Your task to perform on an android device: Open calendar and show me the first week of next month Image 0: 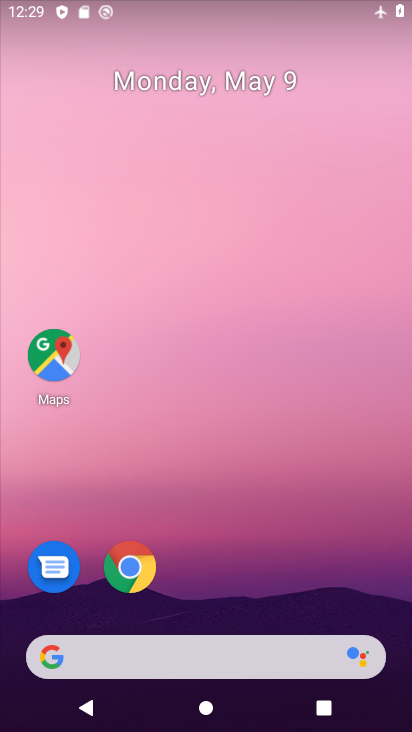
Step 0: drag from (224, 604) to (280, 1)
Your task to perform on an android device: Open calendar and show me the first week of next month Image 1: 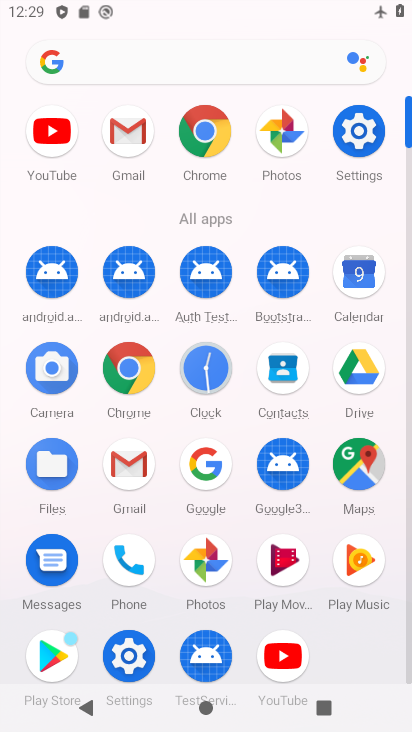
Step 1: click (366, 280)
Your task to perform on an android device: Open calendar and show me the first week of next month Image 2: 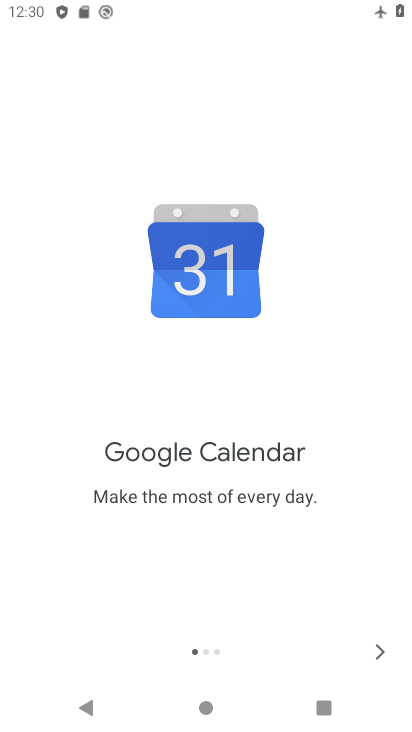
Step 2: click (370, 640)
Your task to perform on an android device: Open calendar and show me the first week of next month Image 3: 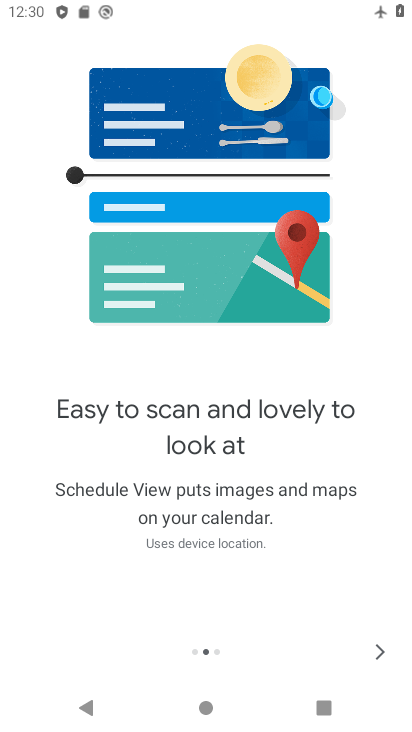
Step 3: click (371, 641)
Your task to perform on an android device: Open calendar and show me the first week of next month Image 4: 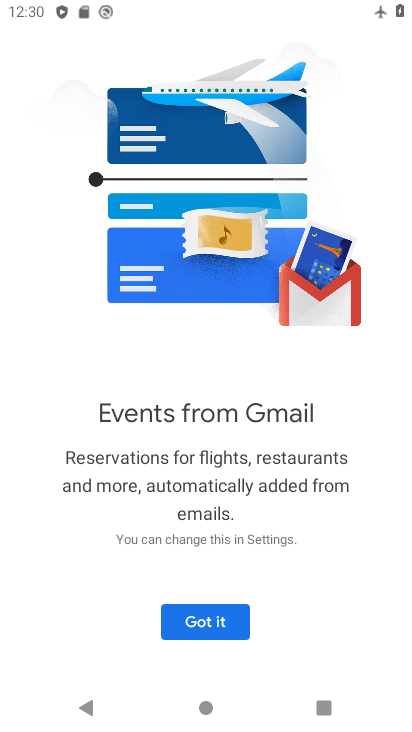
Step 4: click (369, 640)
Your task to perform on an android device: Open calendar and show me the first week of next month Image 5: 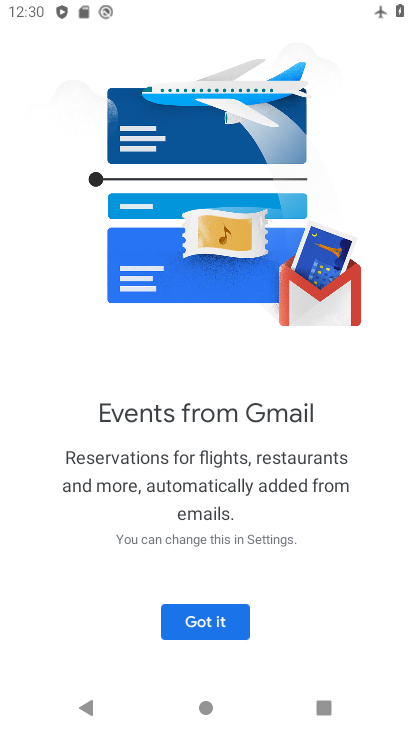
Step 5: click (199, 613)
Your task to perform on an android device: Open calendar and show me the first week of next month Image 6: 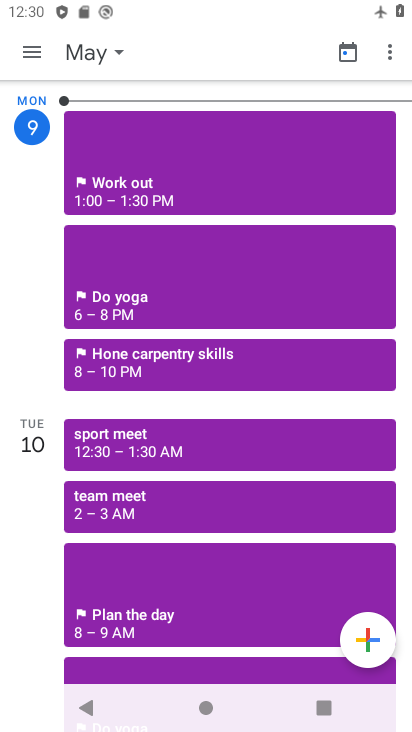
Step 6: click (35, 59)
Your task to perform on an android device: Open calendar and show me the first week of next month Image 7: 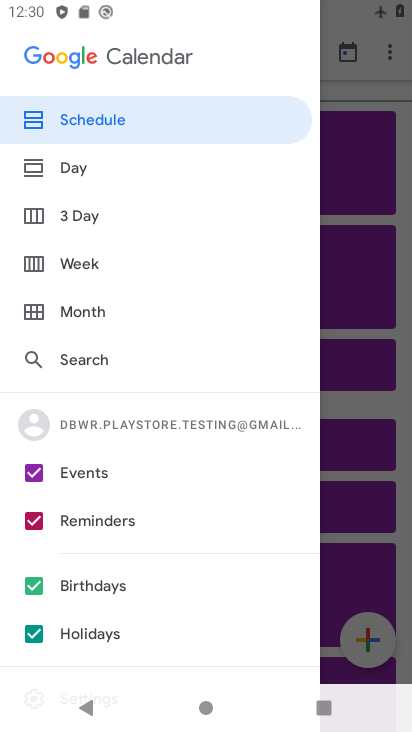
Step 7: click (88, 268)
Your task to perform on an android device: Open calendar and show me the first week of next month Image 8: 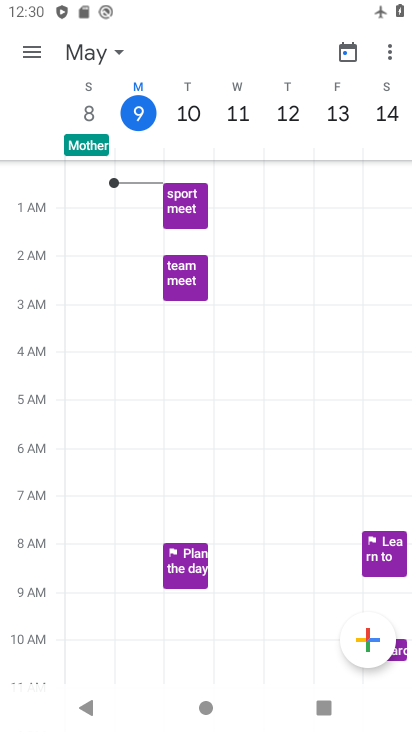
Step 8: task complete